Your task to perform on an android device: Play the last video I watched on Youtube Image 0: 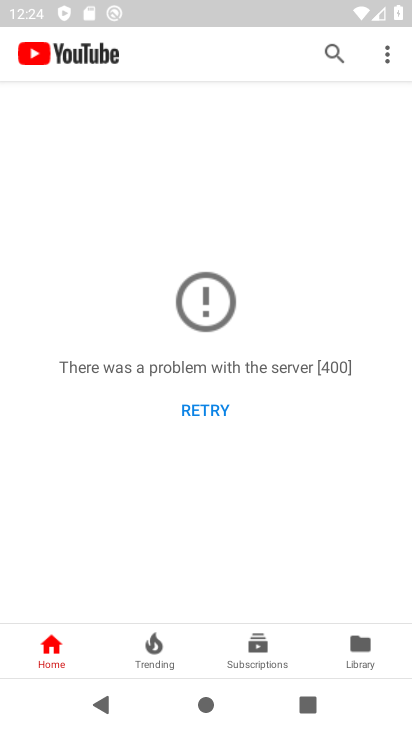
Step 0: click (357, 647)
Your task to perform on an android device: Play the last video I watched on Youtube Image 1: 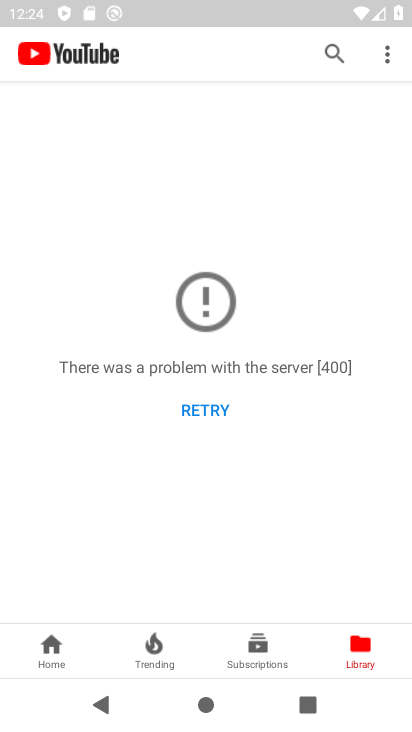
Step 1: click (200, 411)
Your task to perform on an android device: Play the last video I watched on Youtube Image 2: 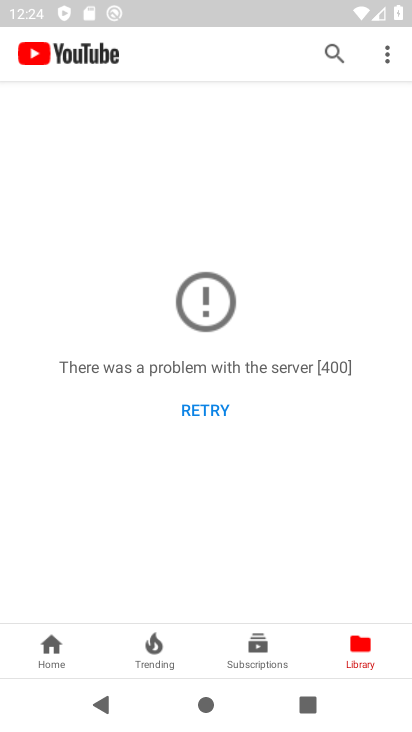
Step 2: click (200, 411)
Your task to perform on an android device: Play the last video I watched on Youtube Image 3: 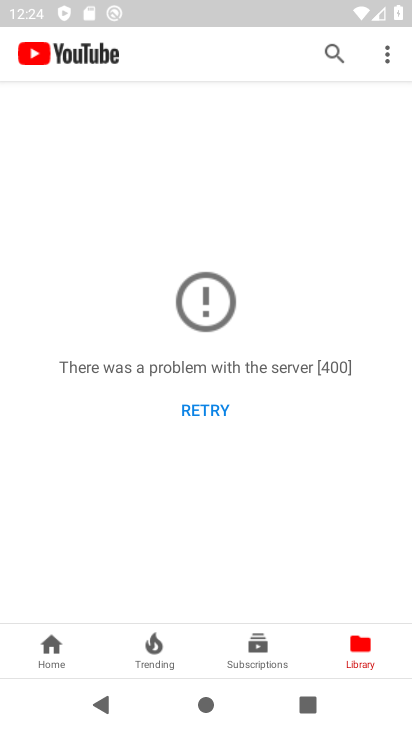
Step 3: click (200, 411)
Your task to perform on an android device: Play the last video I watched on Youtube Image 4: 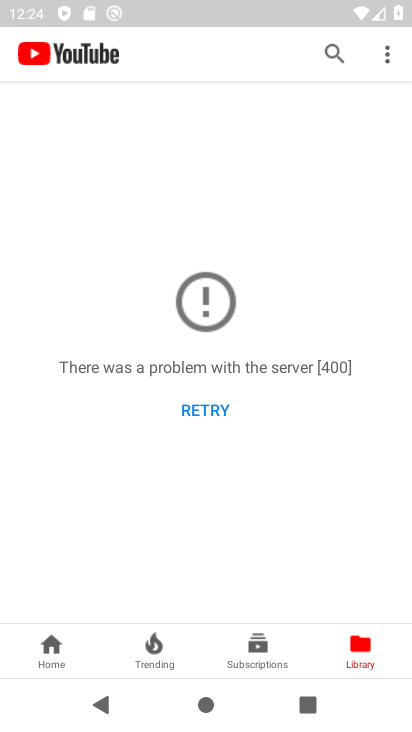
Step 4: click (200, 411)
Your task to perform on an android device: Play the last video I watched on Youtube Image 5: 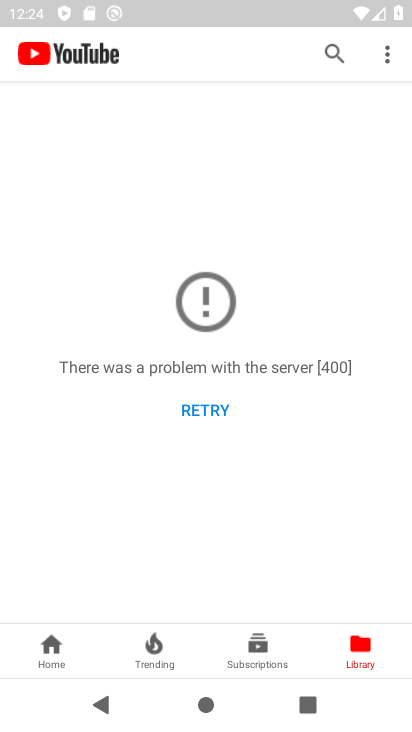
Step 5: task complete